Your task to perform on an android device: allow cookies in the chrome app Image 0: 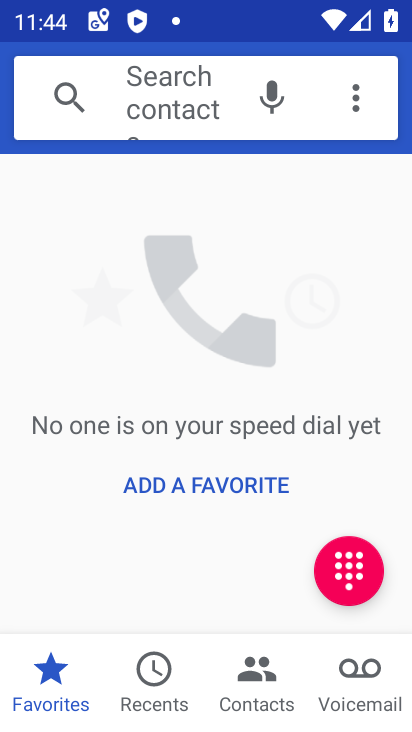
Step 0: press home button
Your task to perform on an android device: allow cookies in the chrome app Image 1: 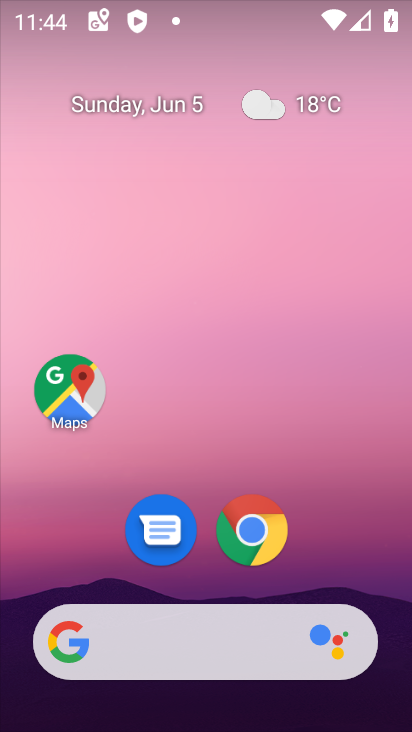
Step 1: drag from (351, 605) to (334, 14)
Your task to perform on an android device: allow cookies in the chrome app Image 2: 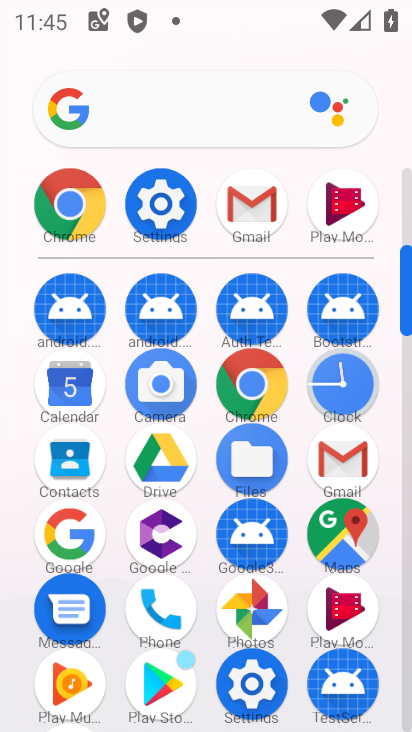
Step 2: click (79, 205)
Your task to perform on an android device: allow cookies in the chrome app Image 3: 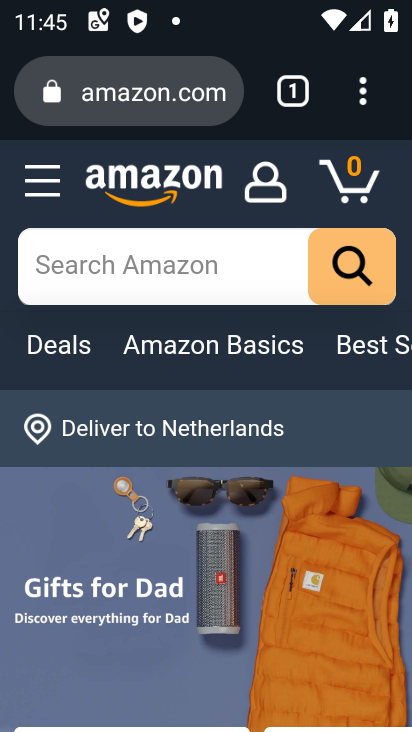
Step 3: drag from (381, 110) to (104, 563)
Your task to perform on an android device: allow cookies in the chrome app Image 4: 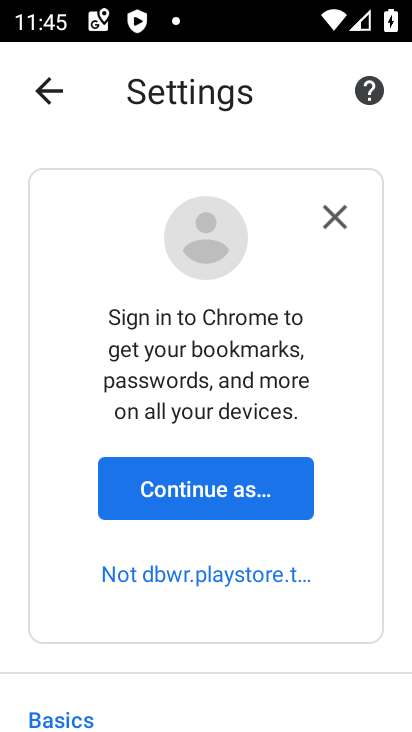
Step 4: drag from (206, 662) to (260, 138)
Your task to perform on an android device: allow cookies in the chrome app Image 5: 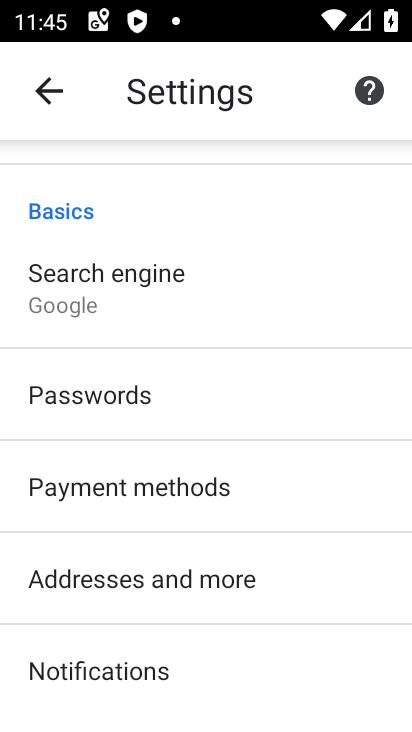
Step 5: drag from (172, 576) to (247, 164)
Your task to perform on an android device: allow cookies in the chrome app Image 6: 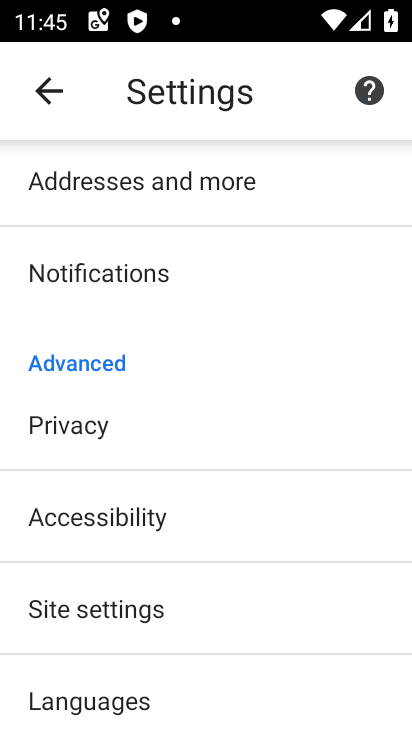
Step 6: drag from (129, 624) to (207, 120)
Your task to perform on an android device: allow cookies in the chrome app Image 7: 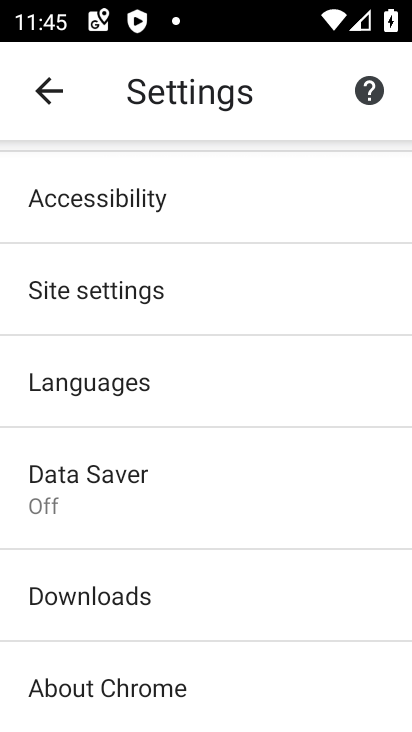
Step 7: click (152, 281)
Your task to perform on an android device: allow cookies in the chrome app Image 8: 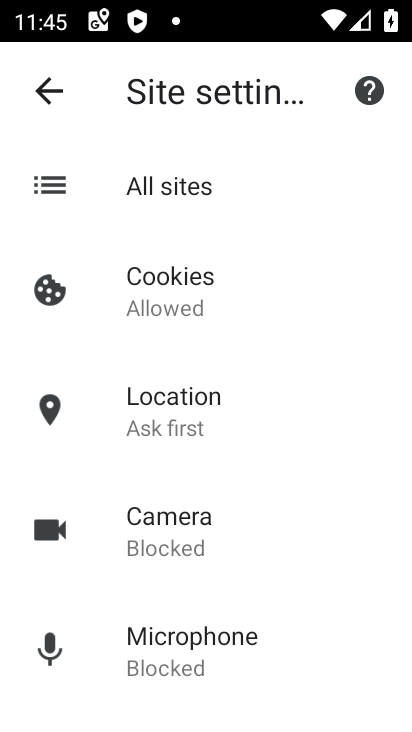
Step 8: click (152, 281)
Your task to perform on an android device: allow cookies in the chrome app Image 9: 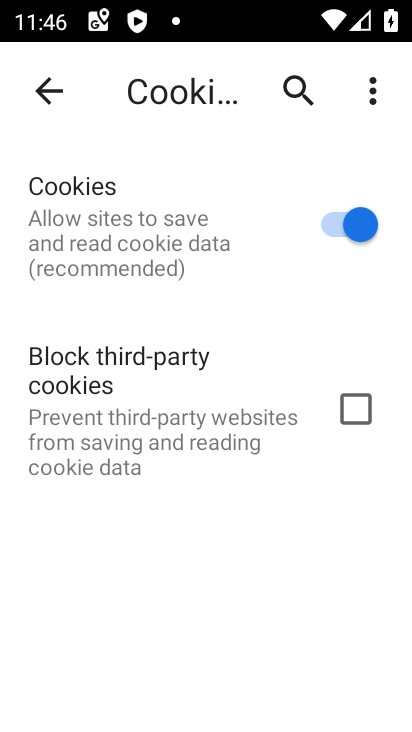
Step 9: task complete